Your task to perform on an android device: toggle notification dots Image 0: 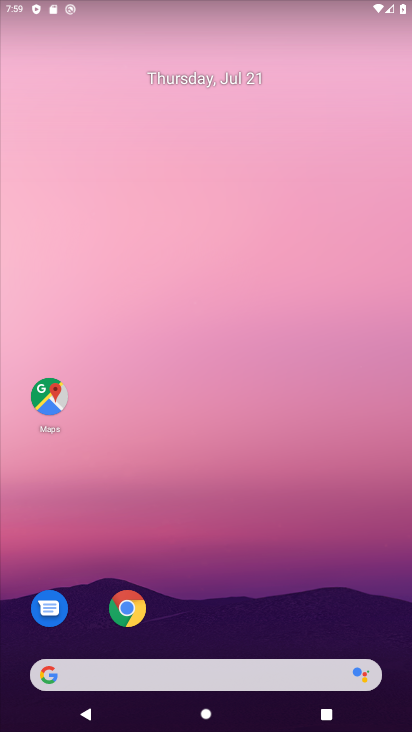
Step 0: drag from (102, 570) to (330, 13)
Your task to perform on an android device: toggle notification dots Image 1: 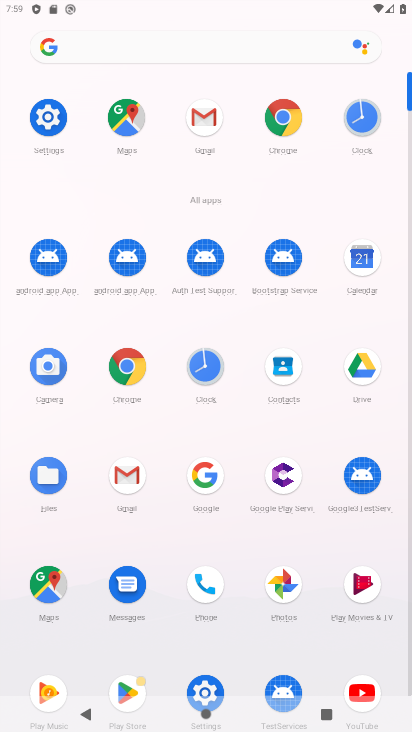
Step 1: click (129, 592)
Your task to perform on an android device: toggle notification dots Image 2: 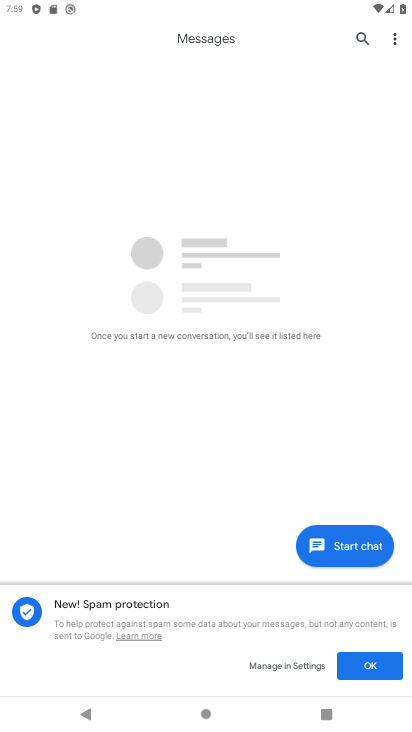
Step 2: task complete